Your task to perform on an android device: Install the Facebook app Image 0: 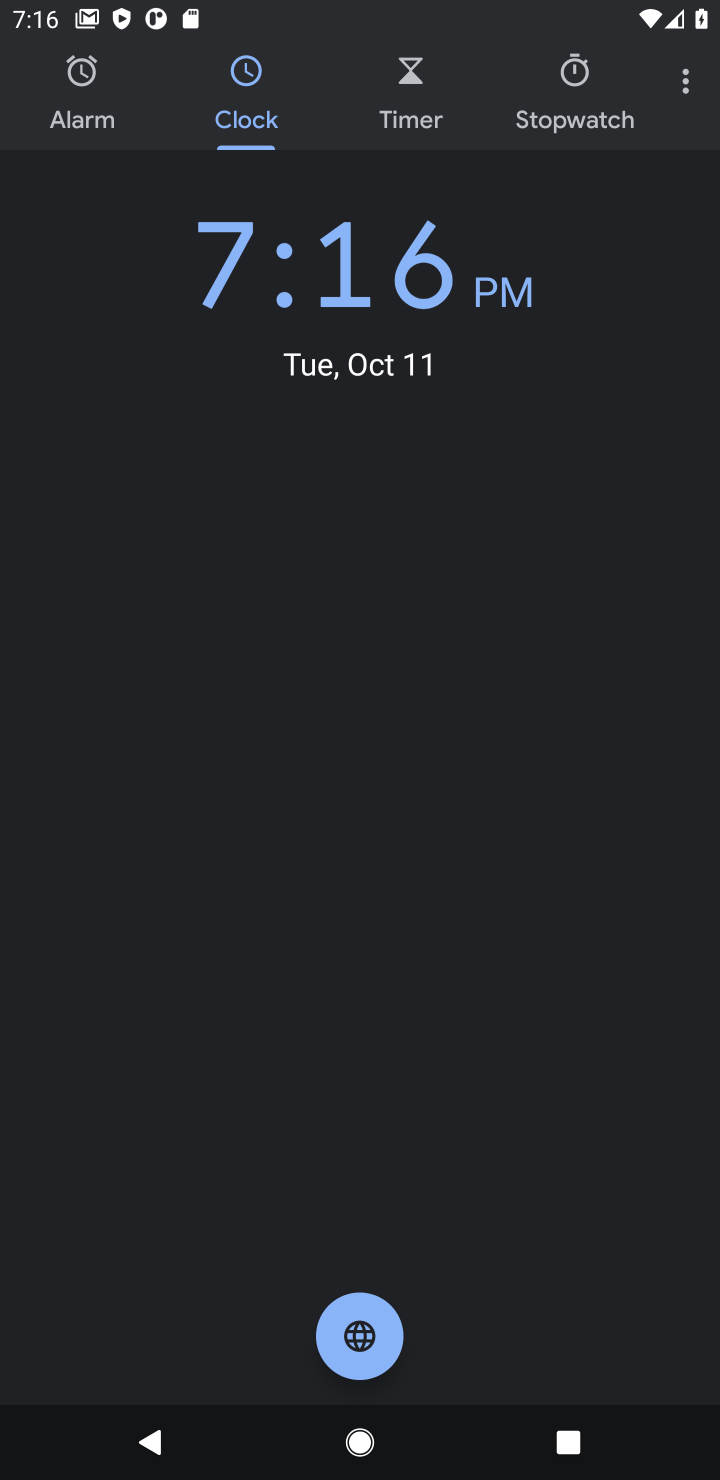
Step 0: press home button
Your task to perform on an android device: Install the Facebook app Image 1: 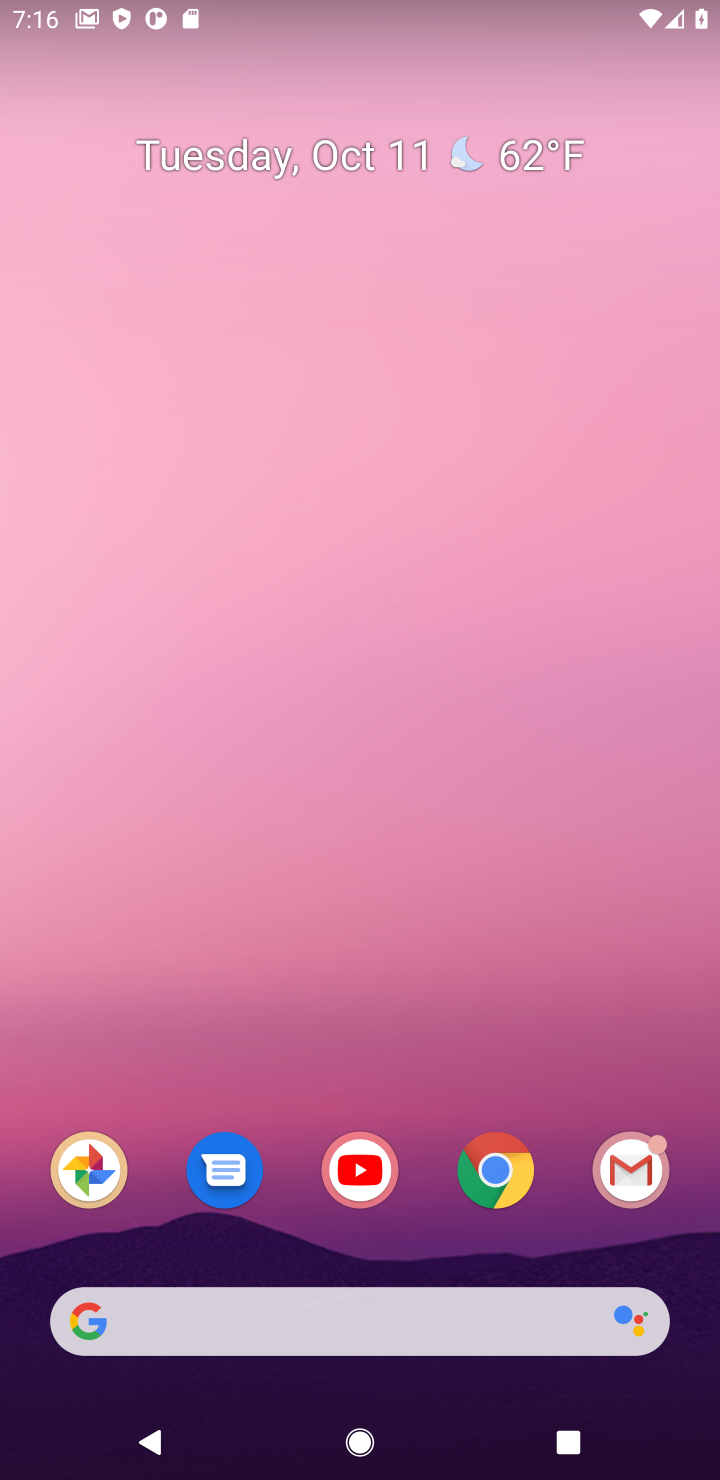
Step 1: drag from (284, 921) to (344, 106)
Your task to perform on an android device: Install the Facebook app Image 2: 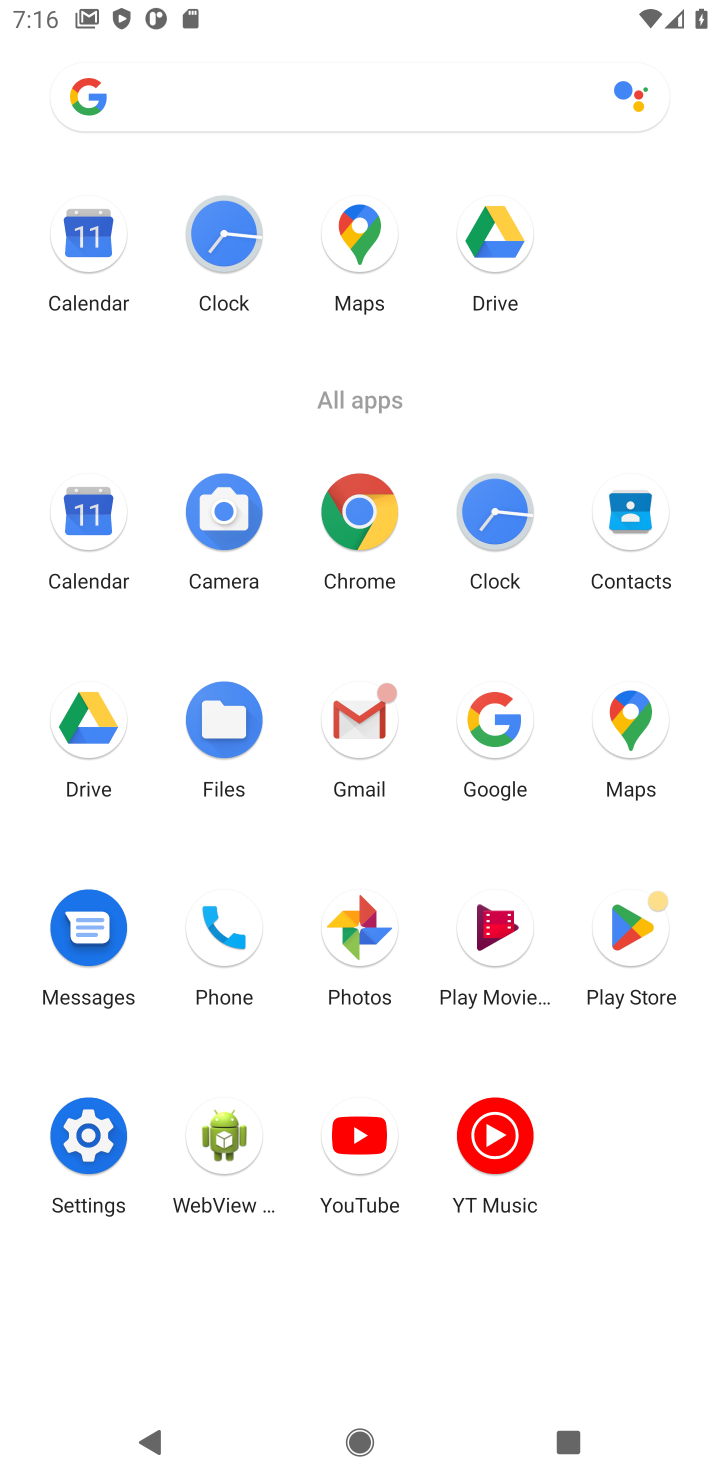
Step 2: click (632, 920)
Your task to perform on an android device: Install the Facebook app Image 3: 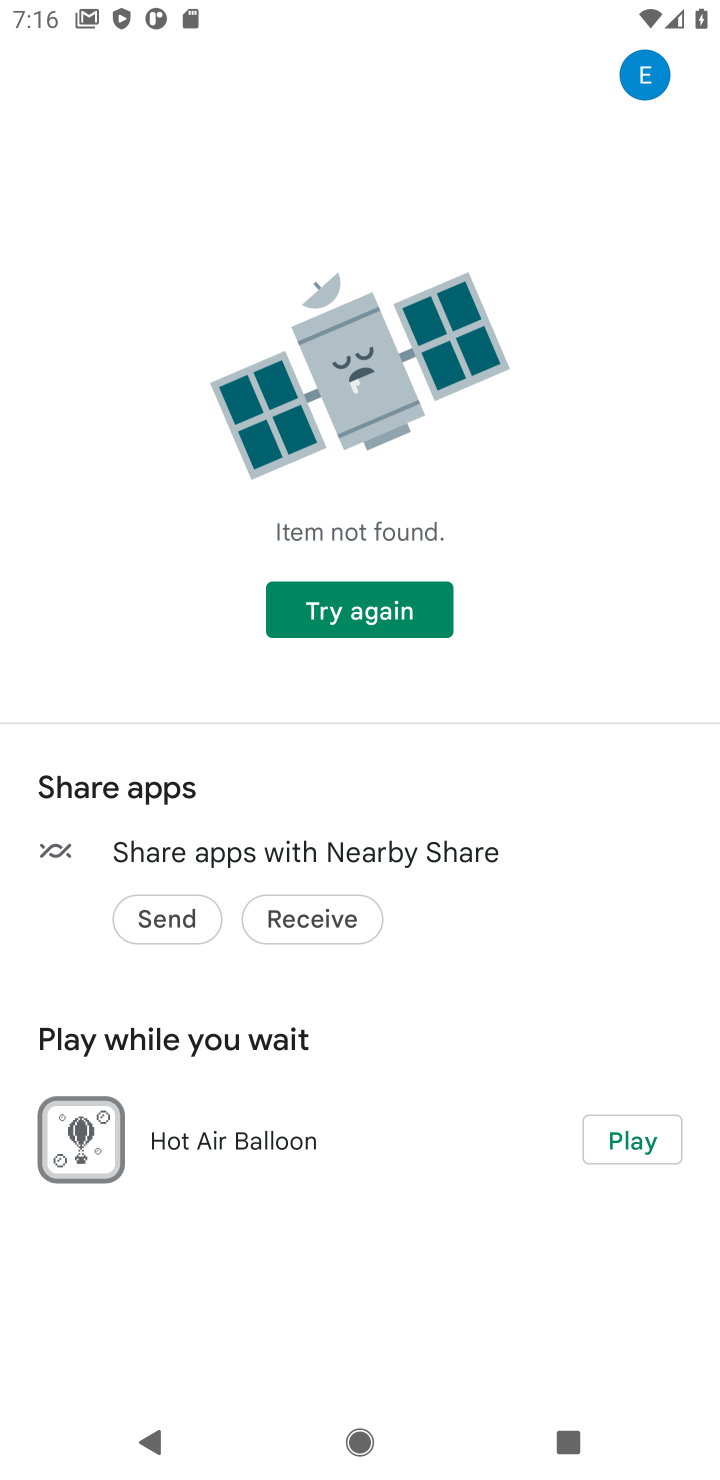
Step 3: click (352, 602)
Your task to perform on an android device: Install the Facebook app Image 4: 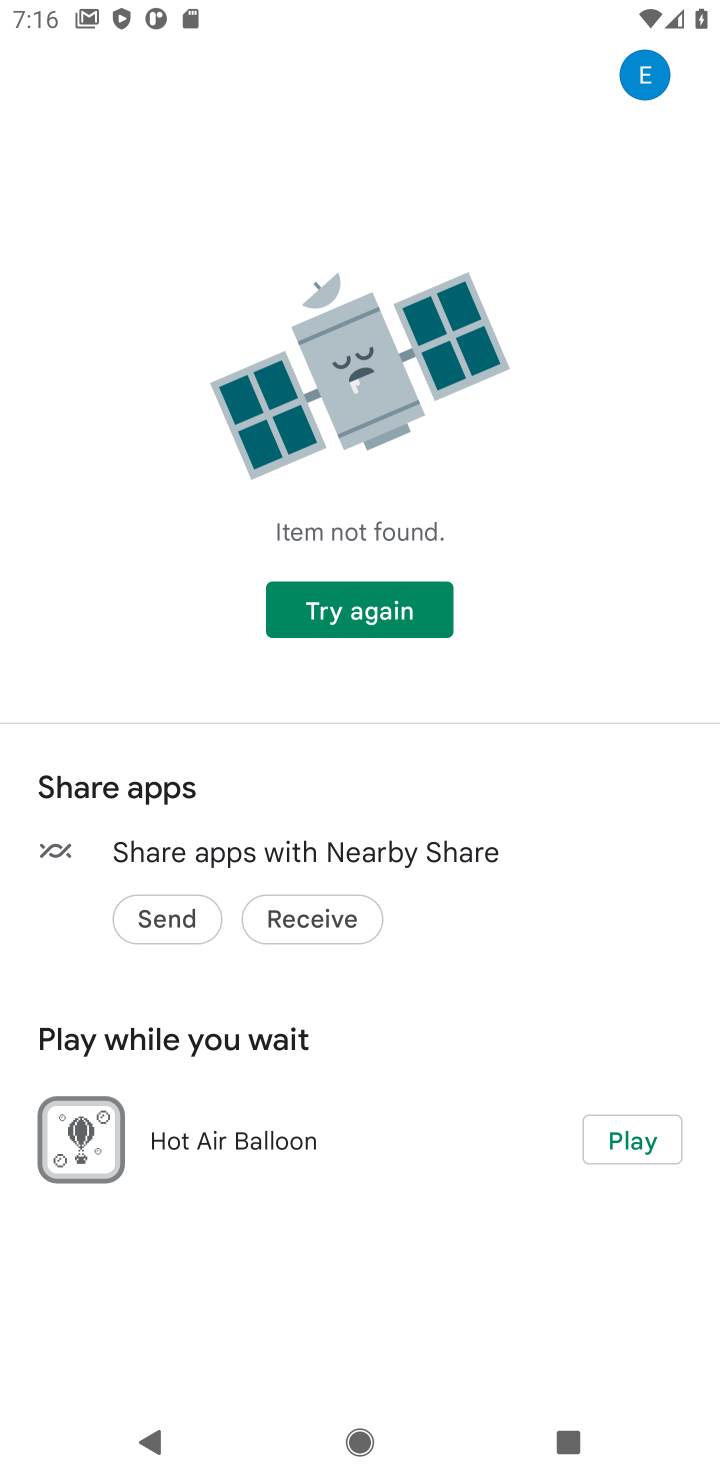
Step 4: click (352, 602)
Your task to perform on an android device: Install the Facebook app Image 5: 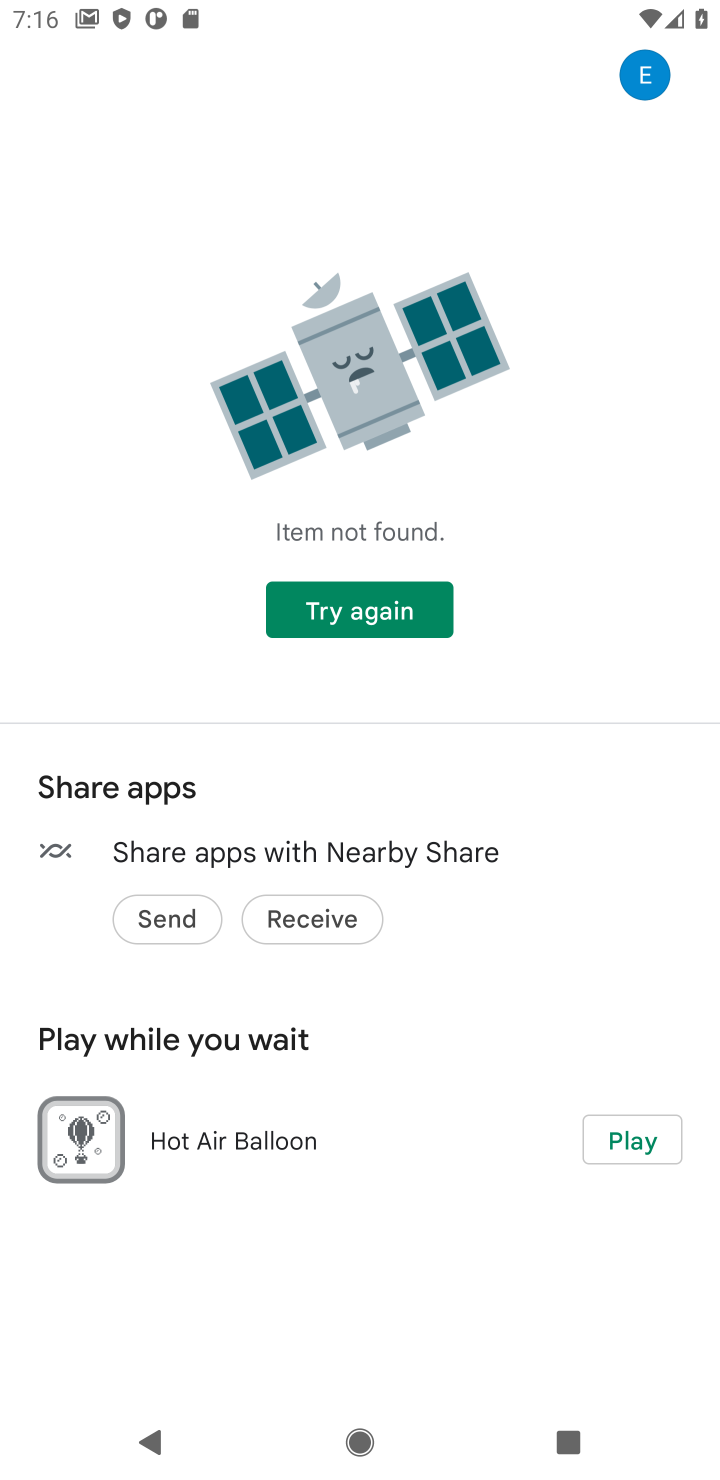
Step 5: click (285, 614)
Your task to perform on an android device: Install the Facebook app Image 6: 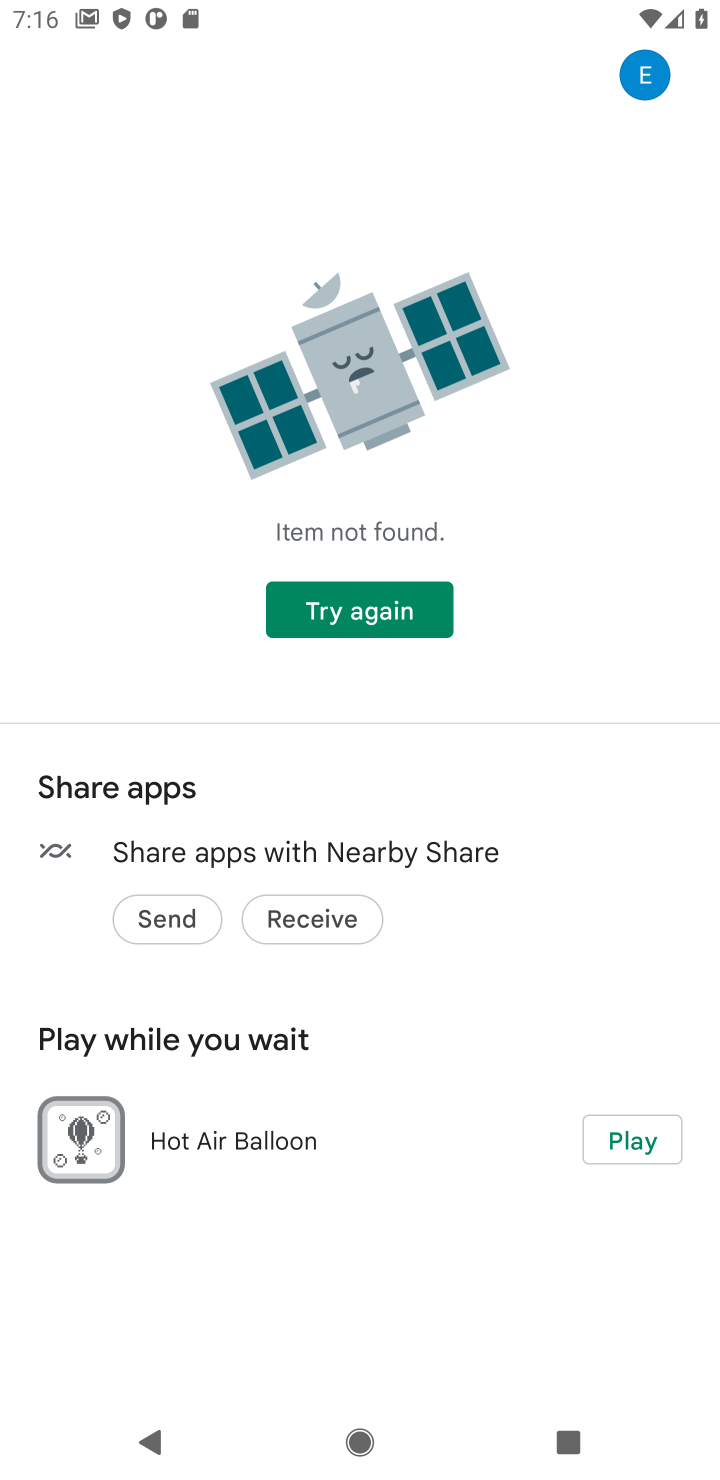
Step 6: click (285, 614)
Your task to perform on an android device: Install the Facebook app Image 7: 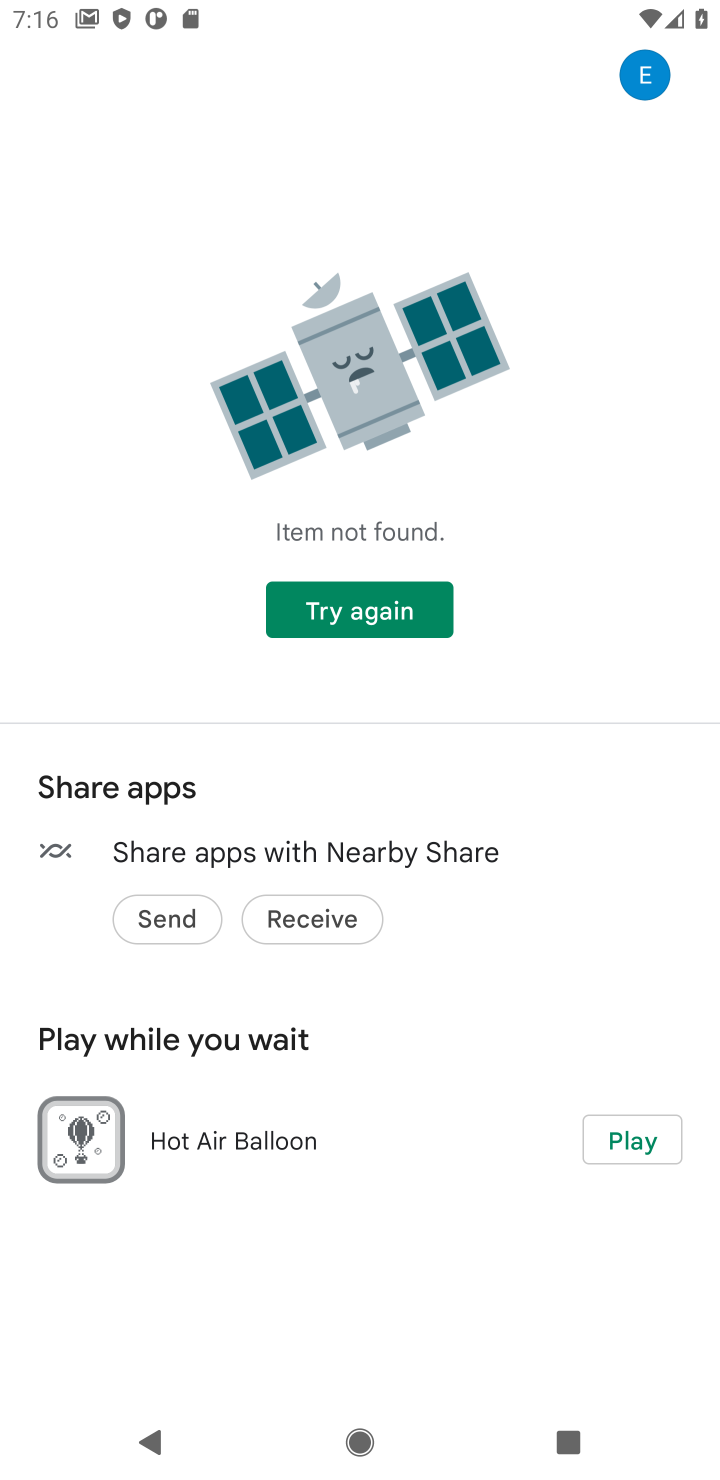
Step 7: task complete